Your task to perform on an android device: turn off wifi Image 0: 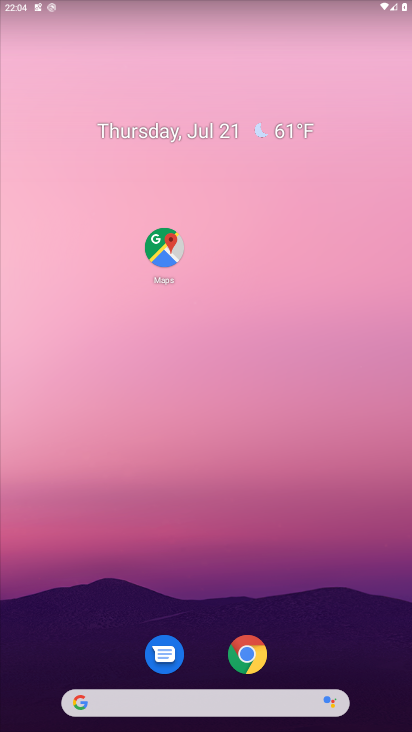
Step 0: drag from (50, 663) to (172, 127)
Your task to perform on an android device: turn off wifi Image 1: 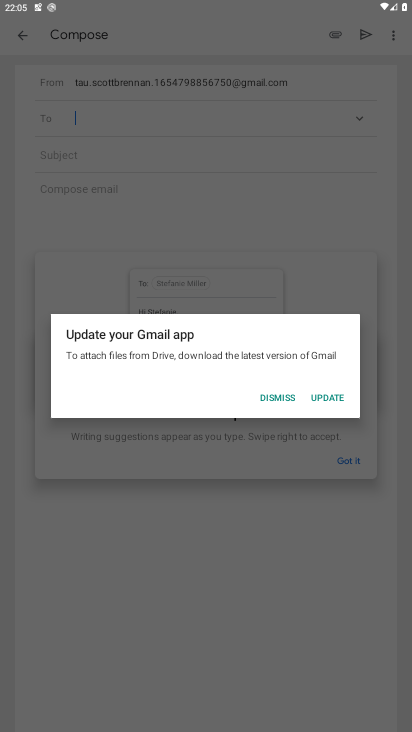
Step 1: press home button
Your task to perform on an android device: turn off wifi Image 2: 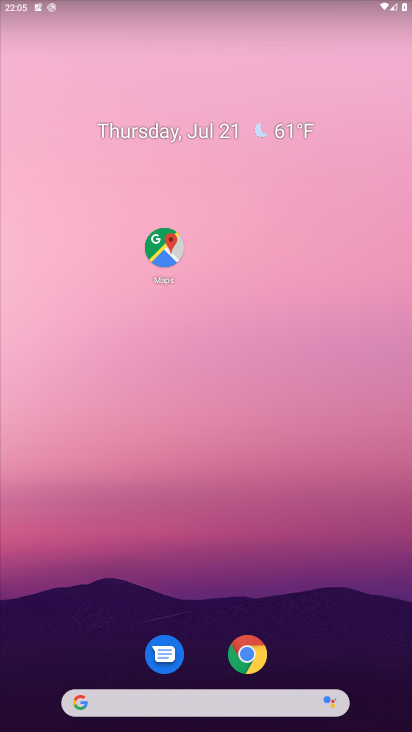
Step 2: drag from (117, 358) to (162, 126)
Your task to perform on an android device: turn off wifi Image 3: 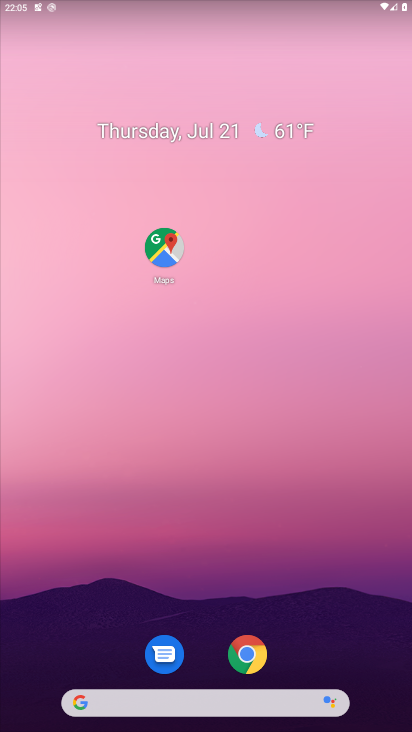
Step 3: drag from (68, 657) to (236, 3)
Your task to perform on an android device: turn off wifi Image 4: 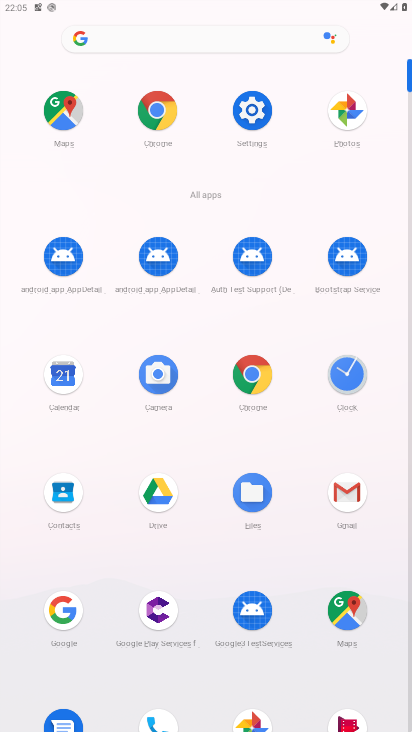
Step 4: click (261, 118)
Your task to perform on an android device: turn off wifi Image 5: 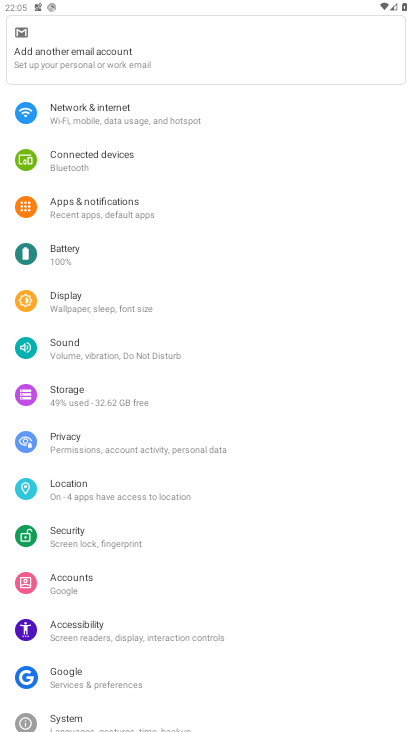
Step 5: click (147, 112)
Your task to perform on an android device: turn off wifi Image 6: 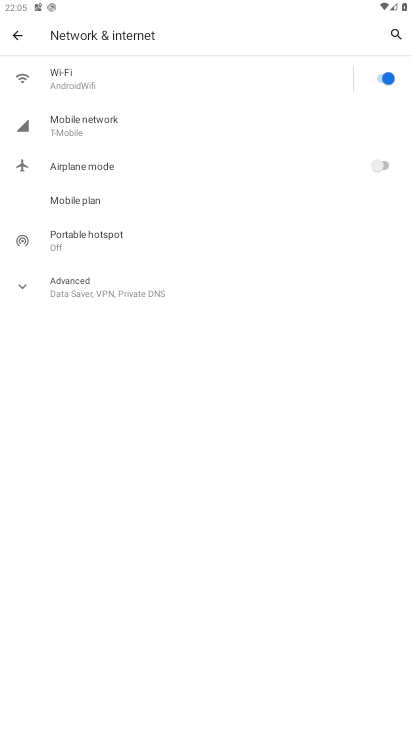
Step 6: click (380, 71)
Your task to perform on an android device: turn off wifi Image 7: 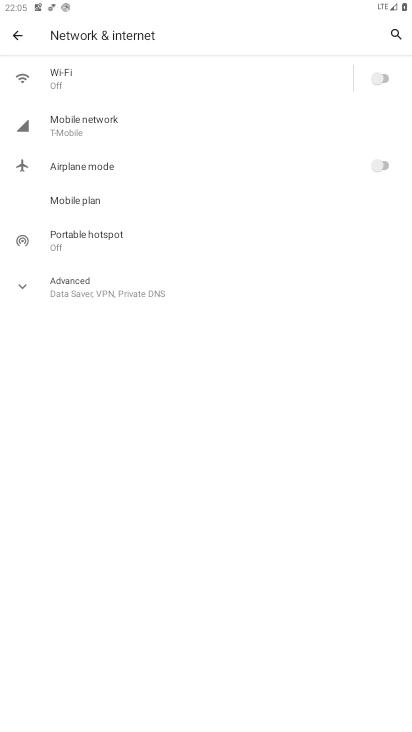
Step 7: task complete